Your task to perform on an android device: set default search engine in the chrome app Image 0: 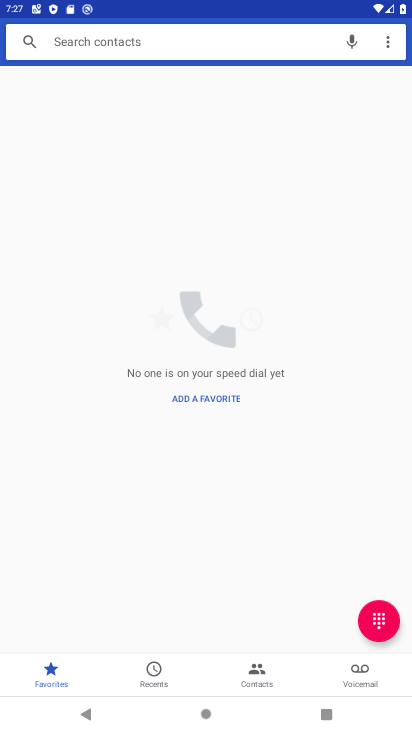
Step 0: press home button
Your task to perform on an android device: set default search engine in the chrome app Image 1: 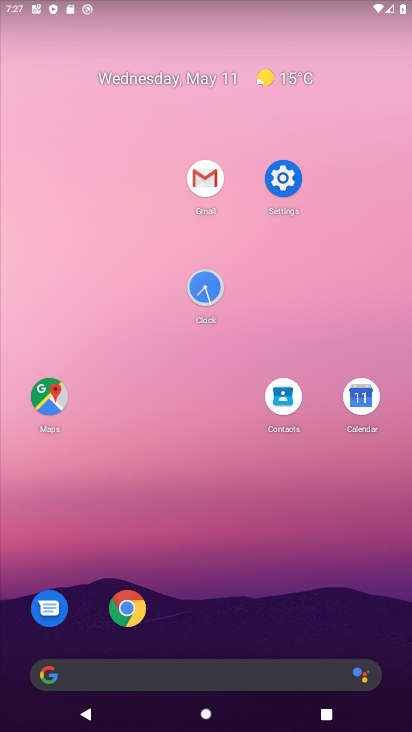
Step 1: click (132, 602)
Your task to perform on an android device: set default search engine in the chrome app Image 2: 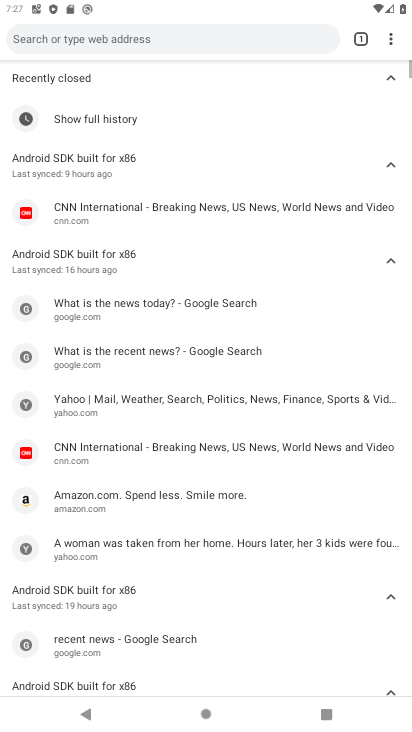
Step 2: click (398, 37)
Your task to perform on an android device: set default search engine in the chrome app Image 3: 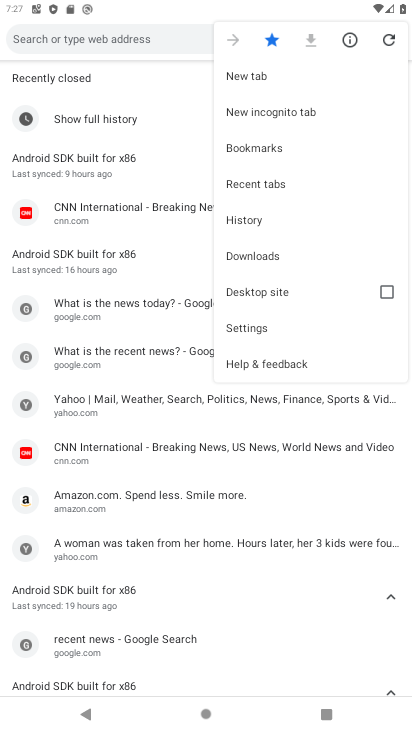
Step 3: click (270, 321)
Your task to perform on an android device: set default search engine in the chrome app Image 4: 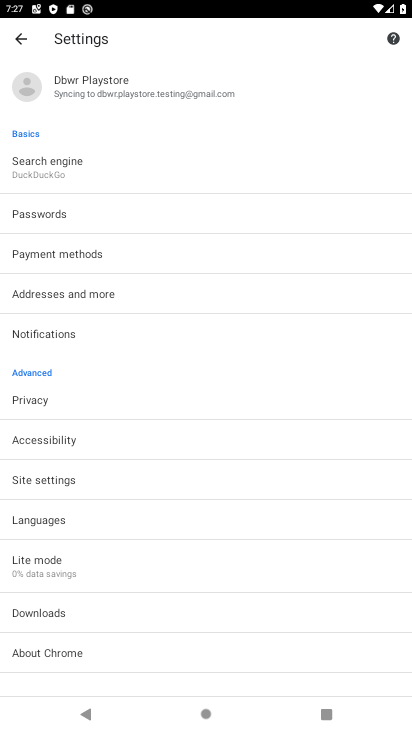
Step 4: click (124, 157)
Your task to perform on an android device: set default search engine in the chrome app Image 5: 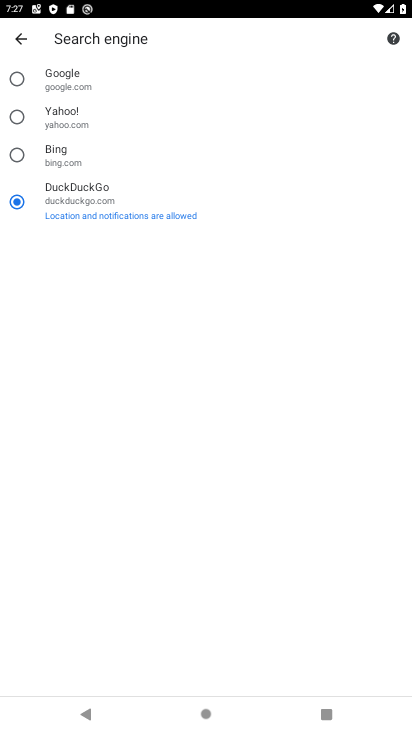
Step 5: click (119, 171)
Your task to perform on an android device: set default search engine in the chrome app Image 6: 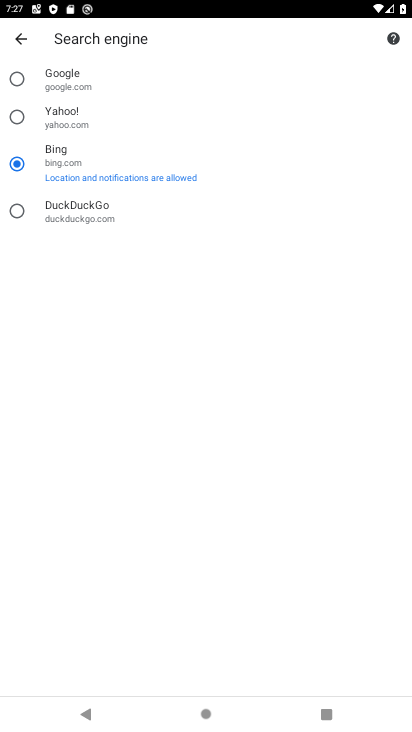
Step 6: task complete